Your task to perform on an android device: Go to wifi settings Image 0: 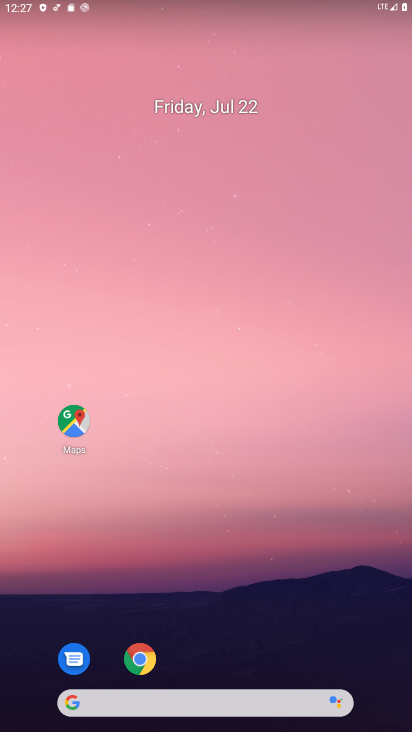
Step 0: drag from (192, 668) to (184, 135)
Your task to perform on an android device: Go to wifi settings Image 1: 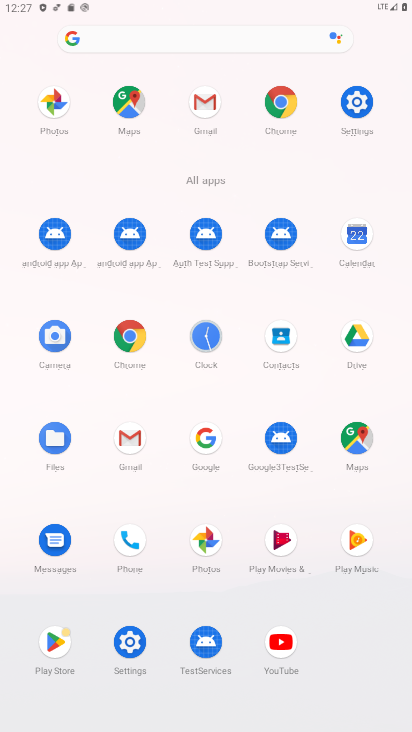
Step 1: click (359, 110)
Your task to perform on an android device: Go to wifi settings Image 2: 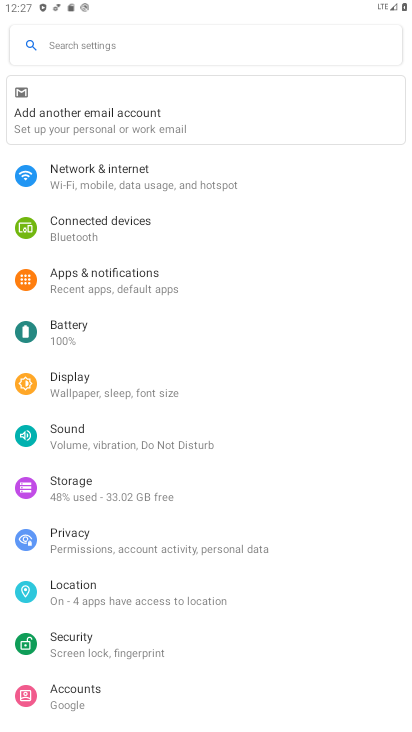
Step 2: click (87, 177)
Your task to perform on an android device: Go to wifi settings Image 3: 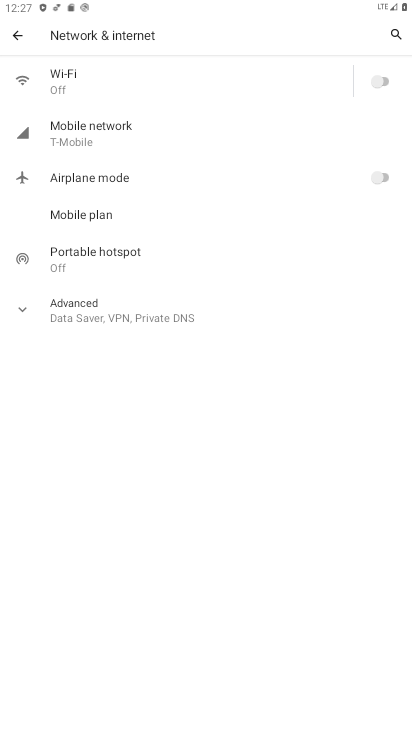
Step 3: click (105, 88)
Your task to perform on an android device: Go to wifi settings Image 4: 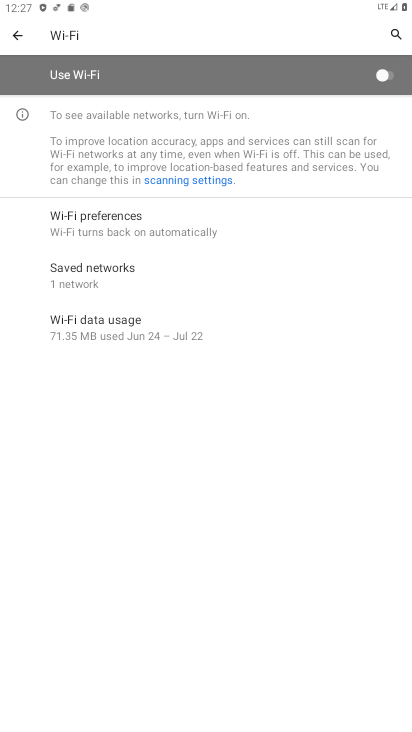
Step 4: task complete